Your task to perform on an android device: Open Google Maps and go to "Timeline" Image 0: 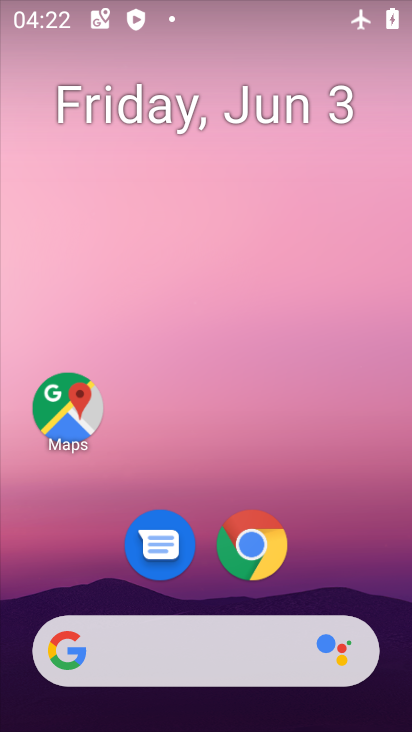
Step 0: click (70, 411)
Your task to perform on an android device: Open Google Maps and go to "Timeline" Image 1: 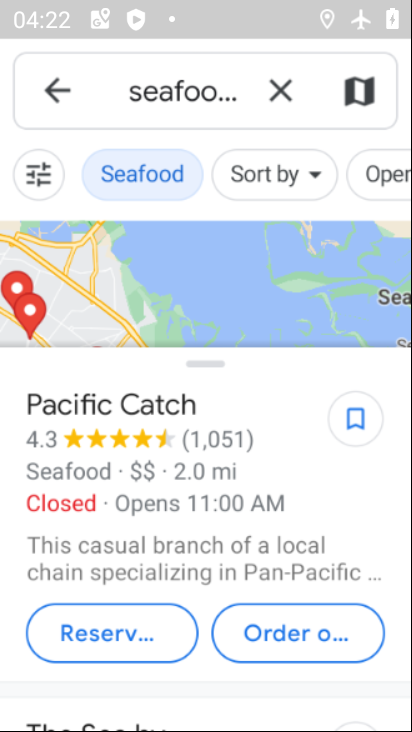
Step 1: click (63, 93)
Your task to perform on an android device: Open Google Maps and go to "Timeline" Image 2: 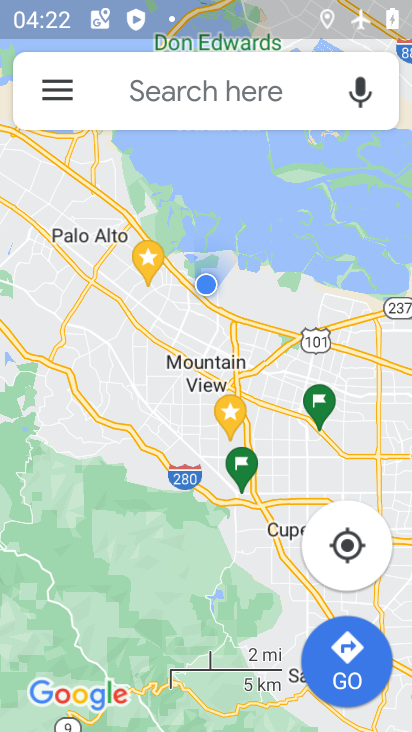
Step 2: click (63, 93)
Your task to perform on an android device: Open Google Maps and go to "Timeline" Image 3: 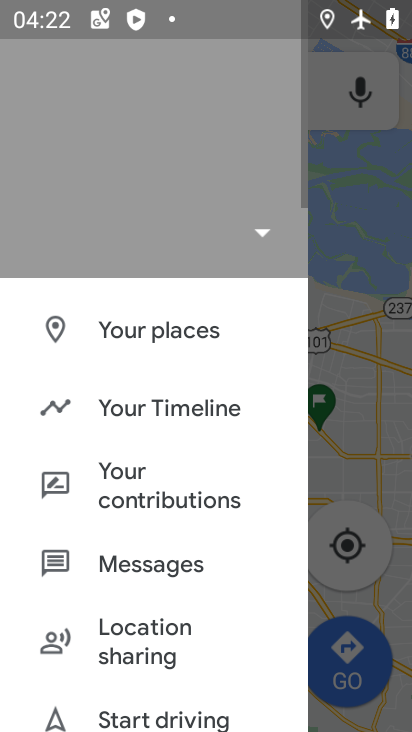
Step 3: click (198, 414)
Your task to perform on an android device: Open Google Maps and go to "Timeline" Image 4: 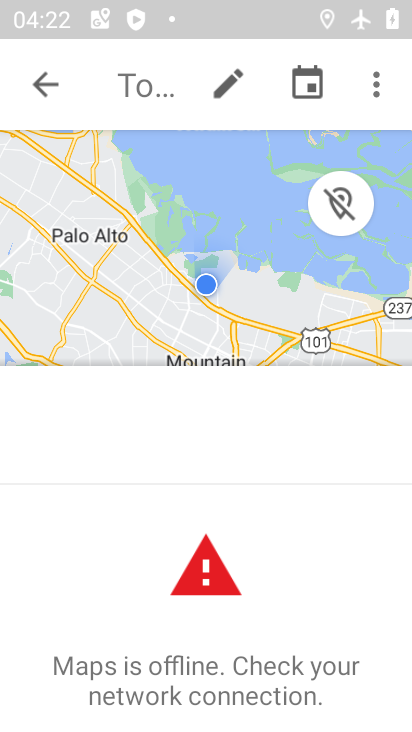
Step 4: task complete